Your task to perform on an android device: add a label to a message in the gmail app Image 0: 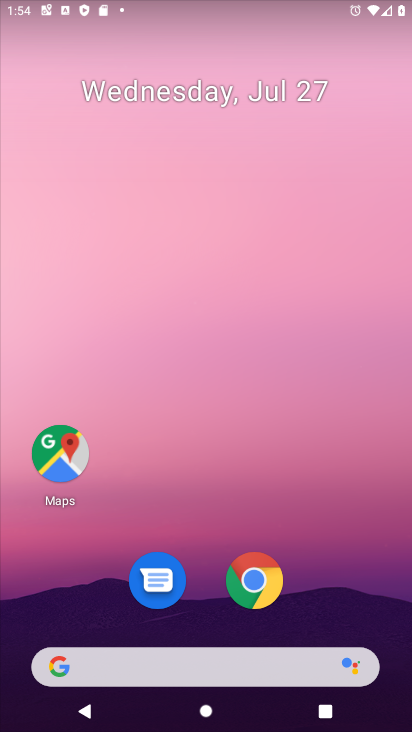
Step 0: drag from (258, 684) to (226, 206)
Your task to perform on an android device: add a label to a message in the gmail app Image 1: 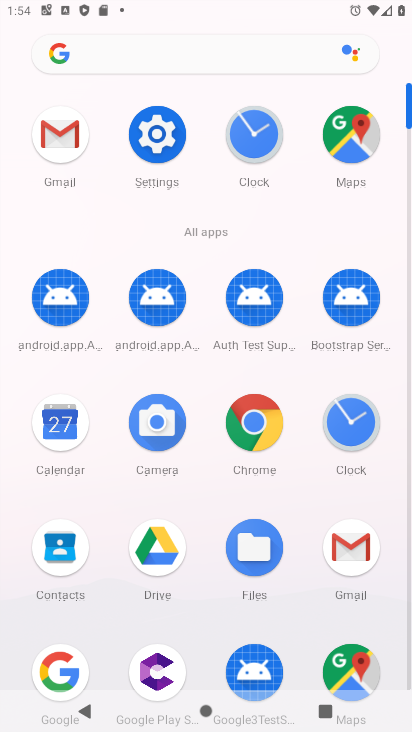
Step 1: click (339, 562)
Your task to perform on an android device: add a label to a message in the gmail app Image 2: 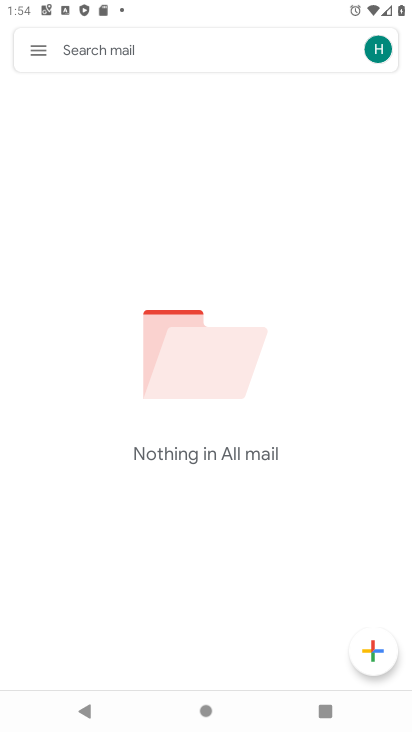
Step 2: click (43, 43)
Your task to perform on an android device: add a label to a message in the gmail app Image 3: 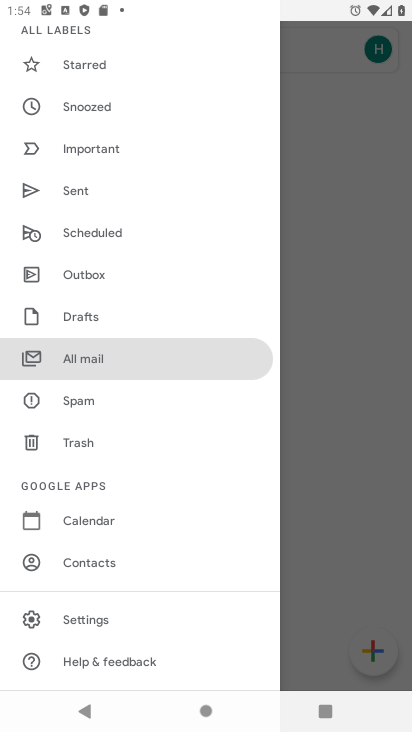
Step 3: click (109, 624)
Your task to perform on an android device: add a label to a message in the gmail app Image 4: 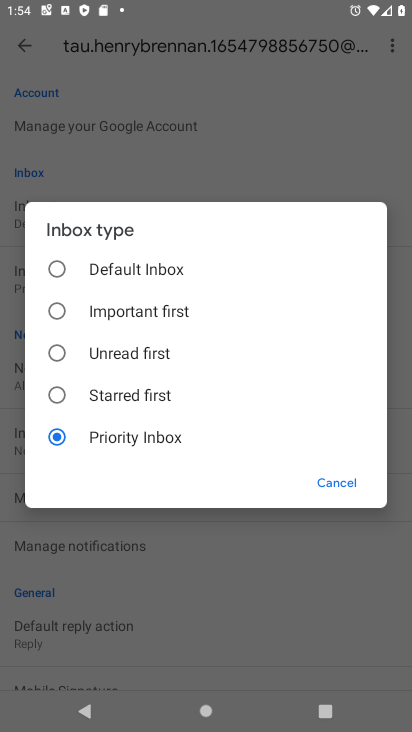
Step 4: click (277, 529)
Your task to perform on an android device: add a label to a message in the gmail app Image 5: 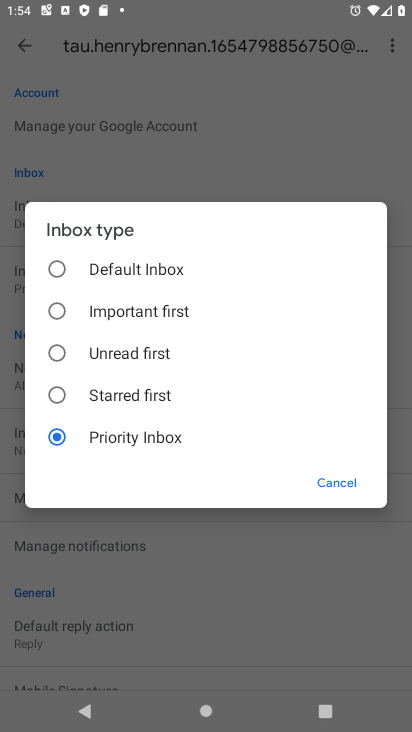
Step 5: click (319, 491)
Your task to perform on an android device: add a label to a message in the gmail app Image 6: 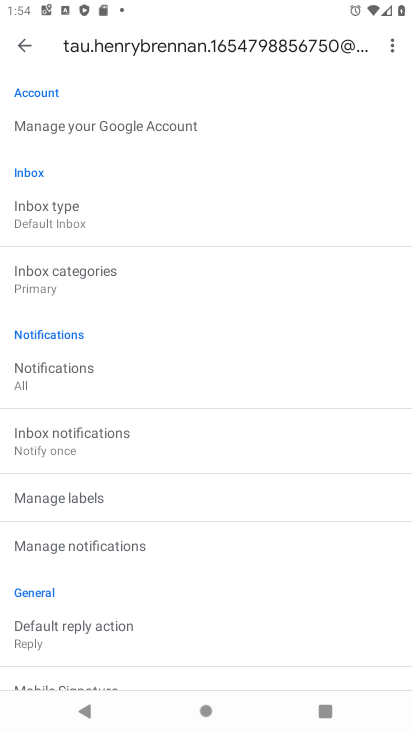
Step 6: click (87, 499)
Your task to perform on an android device: add a label to a message in the gmail app Image 7: 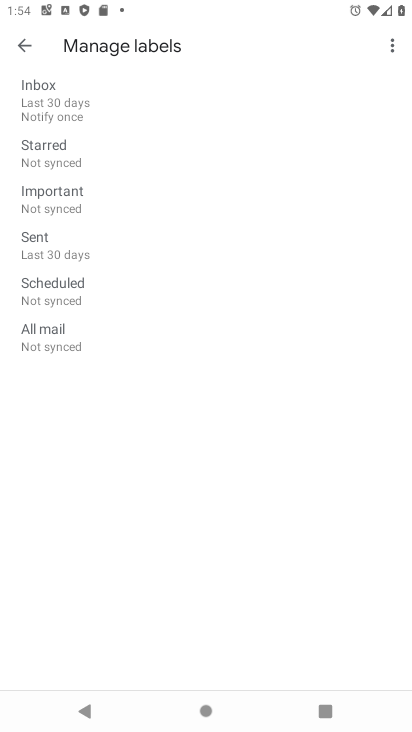
Step 7: click (114, 218)
Your task to perform on an android device: add a label to a message in the gmail app Image 8: 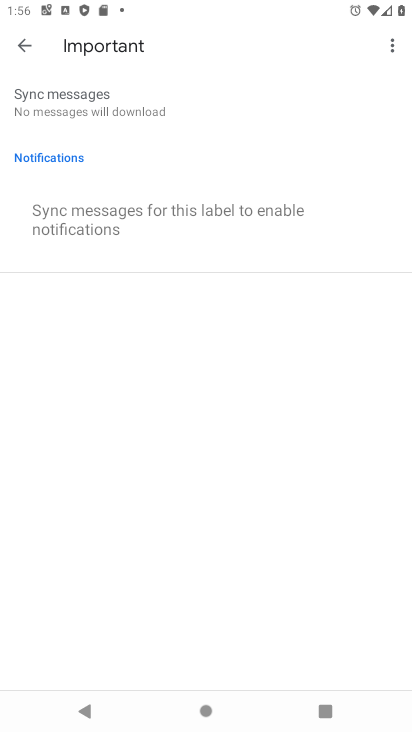
Step 8: task complete